Your task to perform on an android device: delete a single message in the gmail app Image 0: 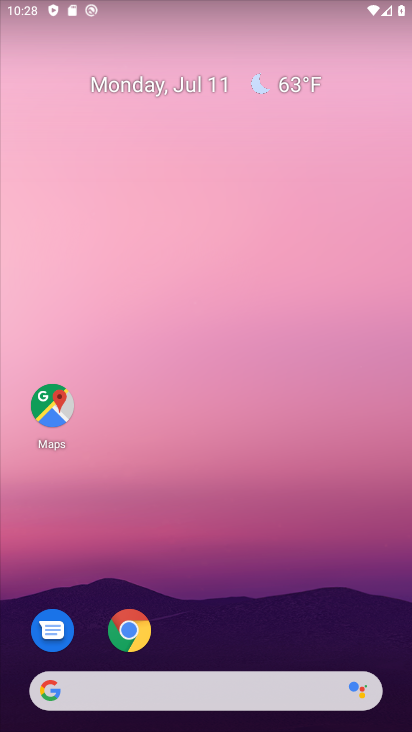
Step 0: drag from (341, 616) to (324, 175)
Your task to perform on an android device: delete a single message in the gmail app Image 1: 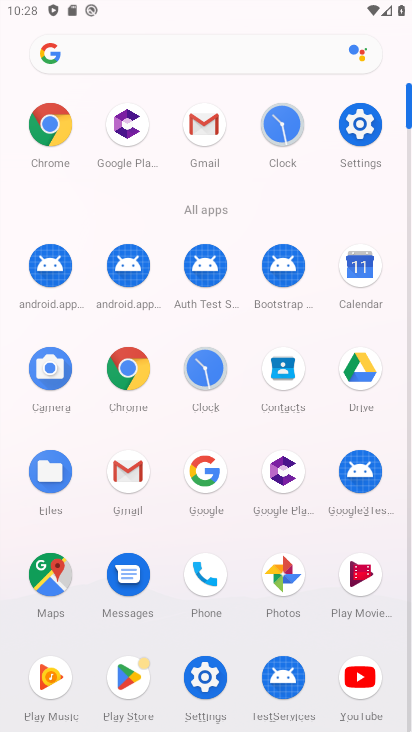
Step 1: click (126, 470)
Your task to perform on an android device: delete a single message in the gmail app Image 2: 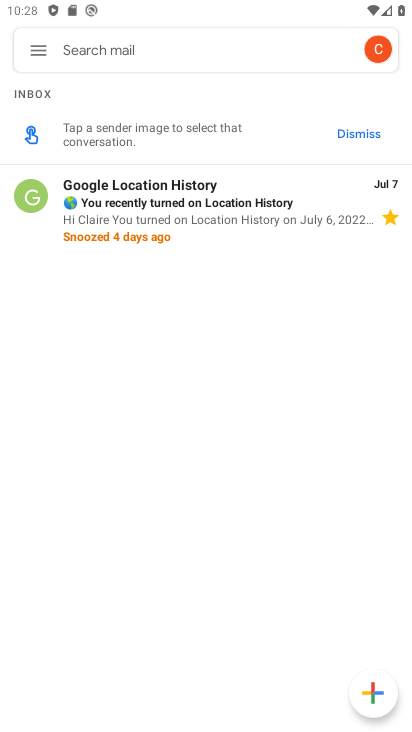
Step 2: click (192, 201)
Your task to perform on an android device: delete a single message in the gmail app Image 3: 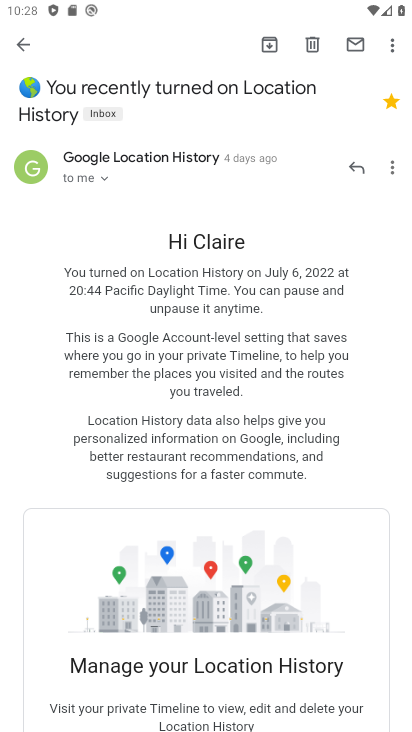
Step 3: click (311, 42)
Your task to perform on an android device: delete a single message in the gmail app Image 4: 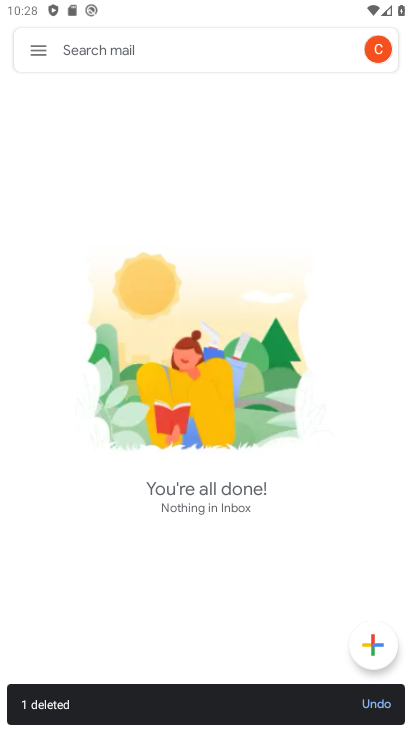
Step 4: task complete